Your task to perform on an android device: turn off javascript in the chrome app Image 0: 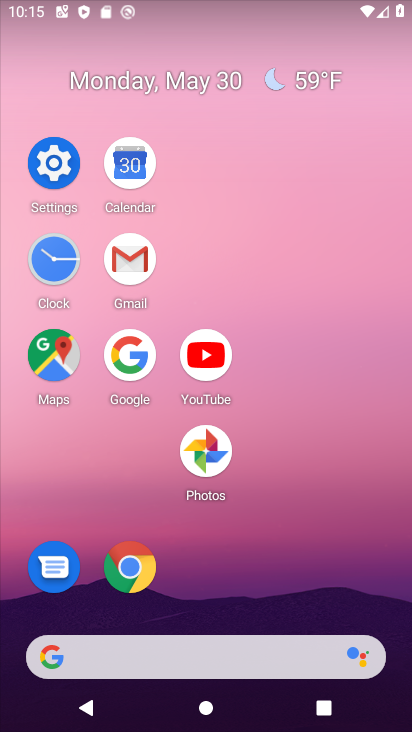
Step 0: click (136, 585)
Your task to perform on an android device: turn off javascript in the chrome app Image 1: 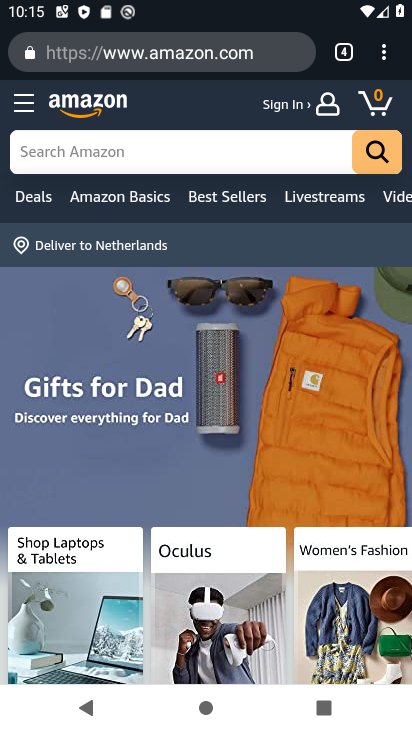
Step 1: click (386, 63)
Your task to perform on an android device: turn off javascript in the chrome app Image 2: 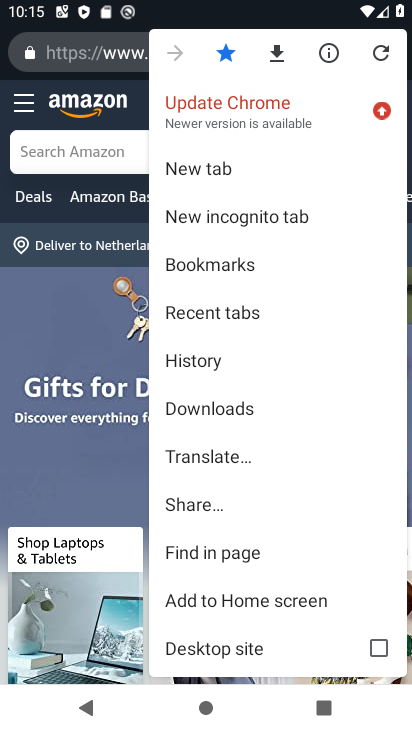
Step 2: drag from (270, 573) to (372, 215)
Your task to perform on an android device: turn off javascript in the chrome app Image 3: 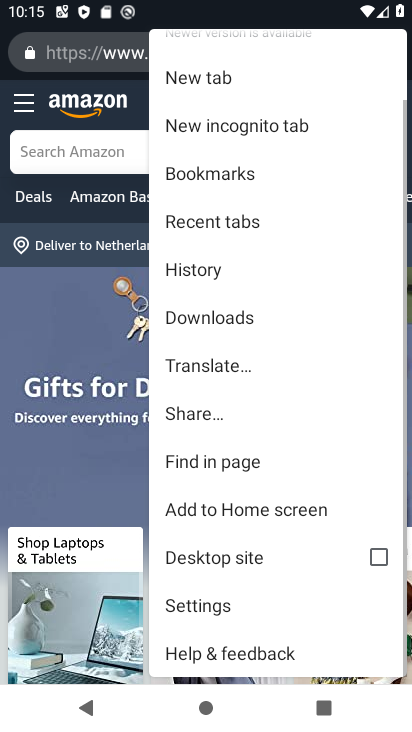
Step 3: click (221, 603)
Your task to perform on an android device: turn off javascript in the chrome app Image 4: 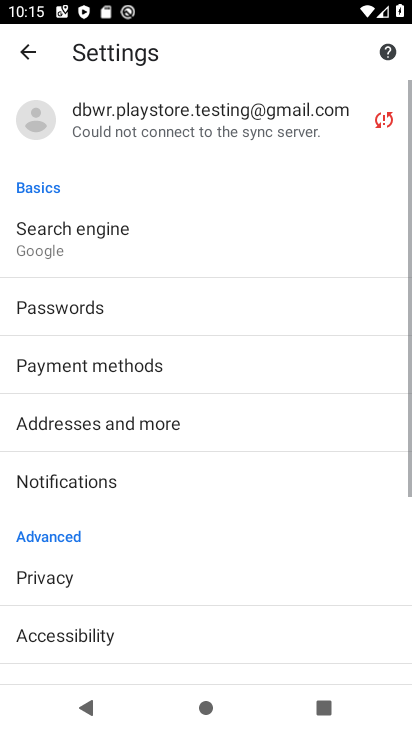
Step 4: drag from (222, 603) to (286, 142)
Your task to perform on an android device: turn off javascript in the chrome app Image 5: 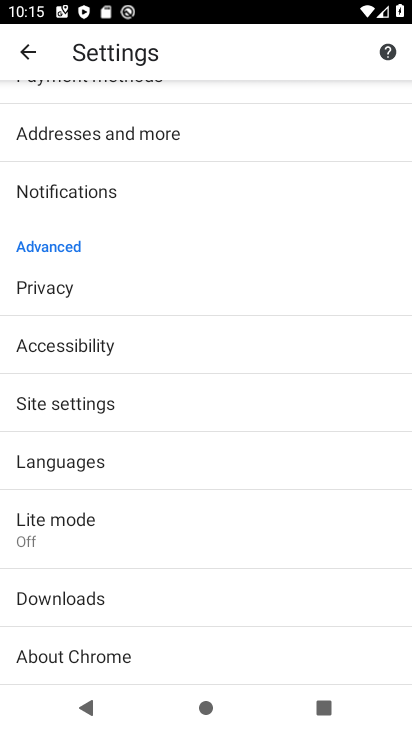
Step 5: click (120, 419)
Your task to perform on an android device: turn off javascript in the chrome app Image 6: 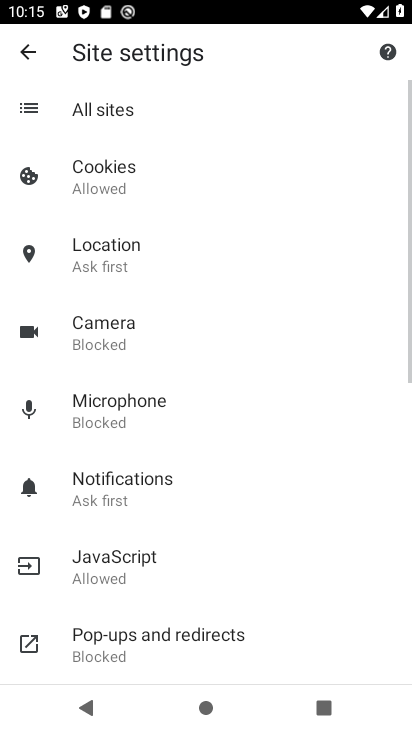
Step 6: click (191, 559)
Your task to perform on an android device: turn off javascript in the chrome app Image 7: 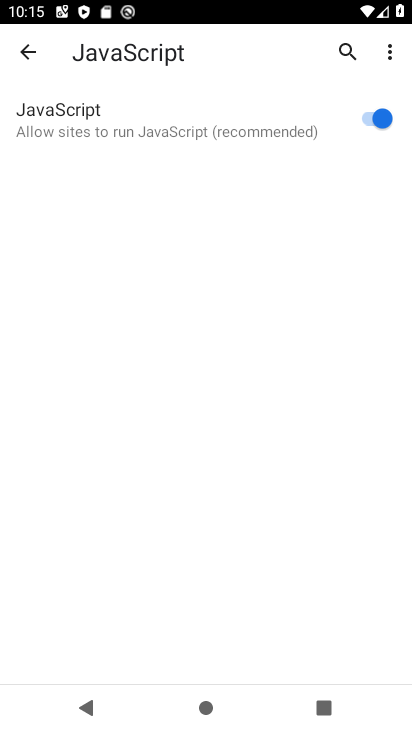
Step 7: click (370, 121)
Your task to perform on an android device: turn off javascript in the chrome app Image 8: 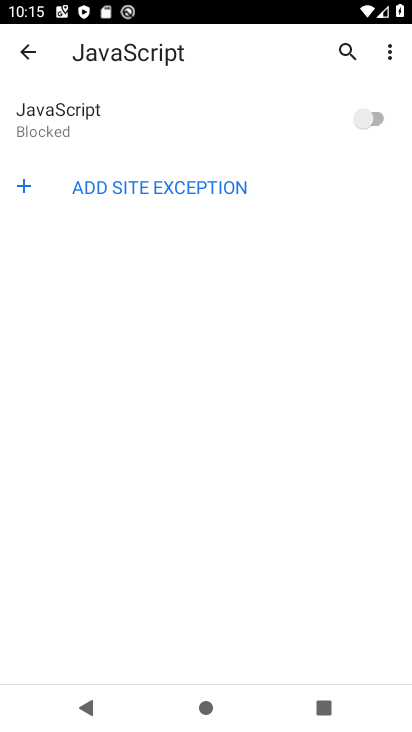
Step 8: task complete